Your task to perform on an android device: turn off smart reply in the gmail app Image 0: 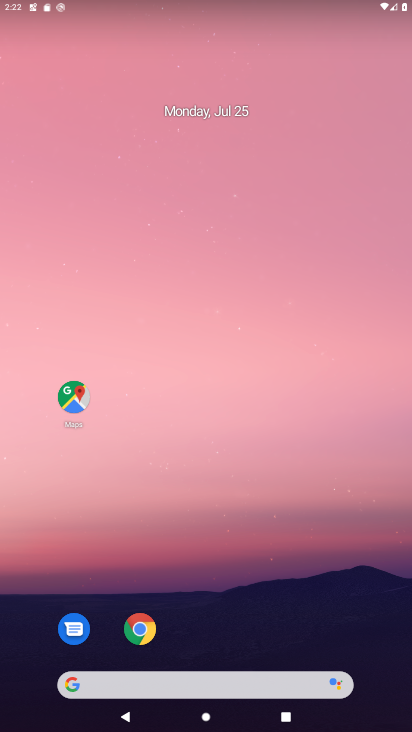
Step 0: drag from (109, 538) to (0, 72)
Your task to perform on an android device: turn off smart reply in the gmail app Image 1: 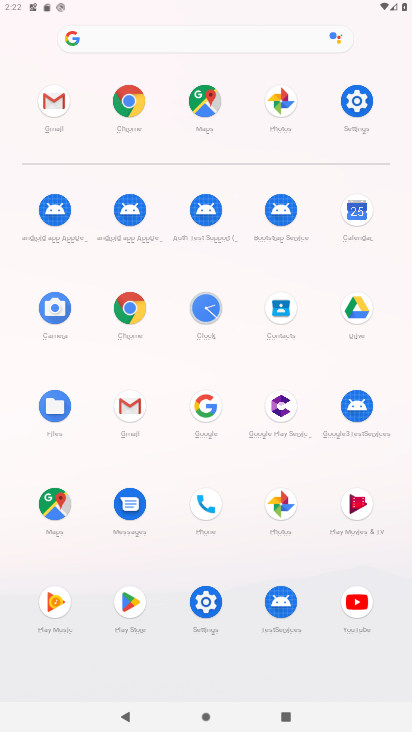
Step 1: click (54, 103)
Your task to perform on an android device: turn off smart reply in the gmail app Image 2: 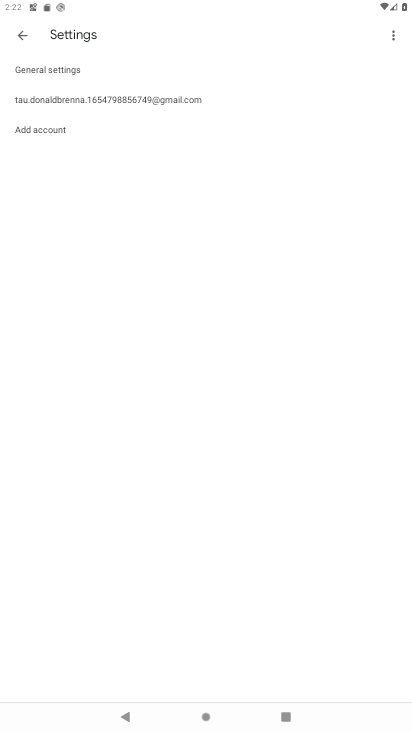
Step 2: click (28, 30)
Your task to perform on an android device: turn off smart reply in the gmail app Image 3: 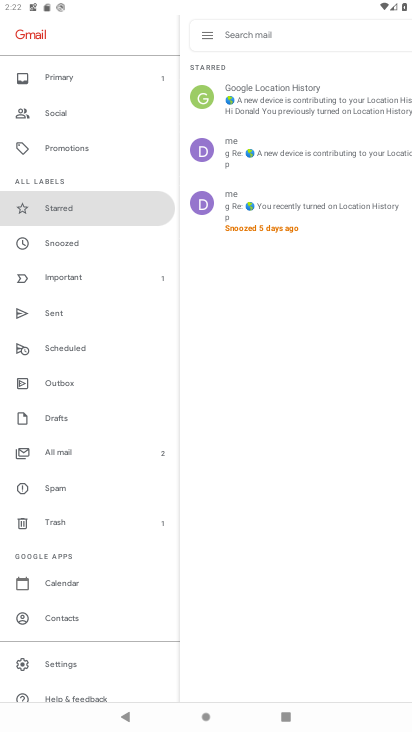
Step 3: drag from (71, 682) to (78, 259)
Your task to perform on an android device: turn off smart reply in the gmail app Image 4: 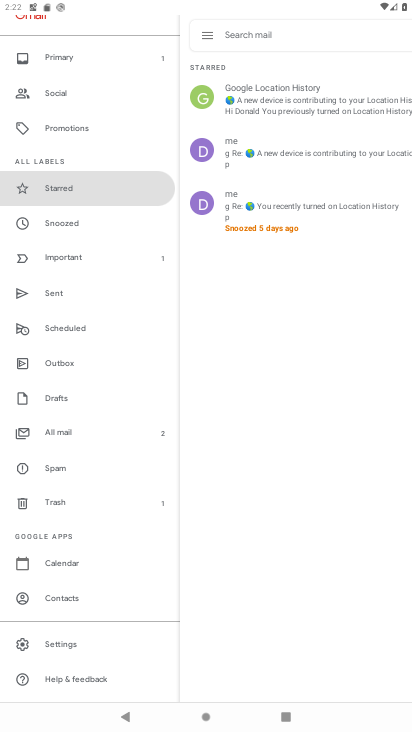
Step 4: click (45, 637)
Your task to perform on an android device: turn off smart reply in the gmail app Image 5: 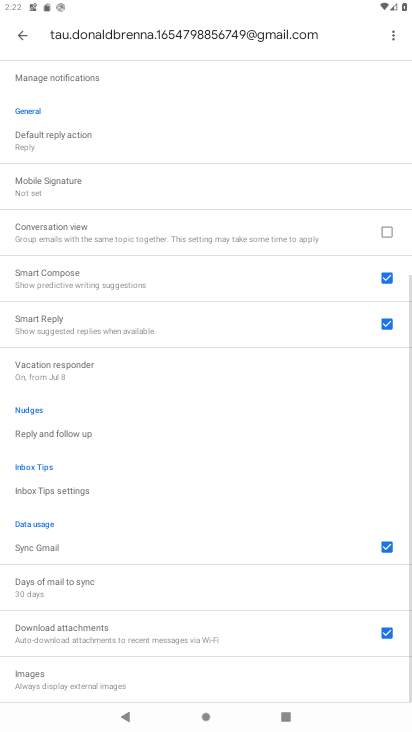
Step 5: drag from (46, 636) to (71, 266)
Your task to perform on an android device: turn off smart reply in the gmail app Image 6: 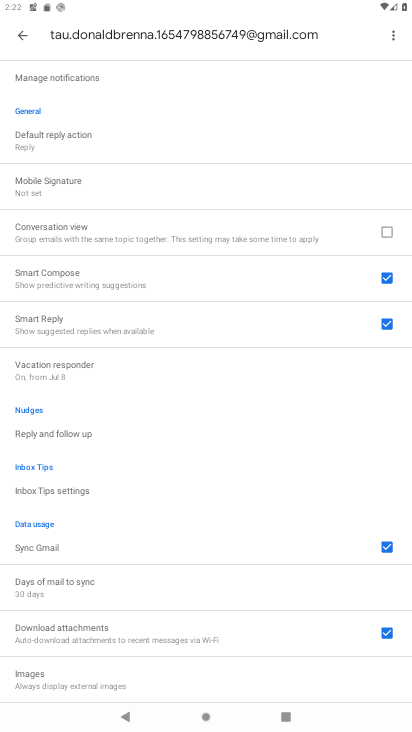
Step 6: click (382, 329)
Your task to perform on an android device: turn off smart reply in the gmail app Image 7: 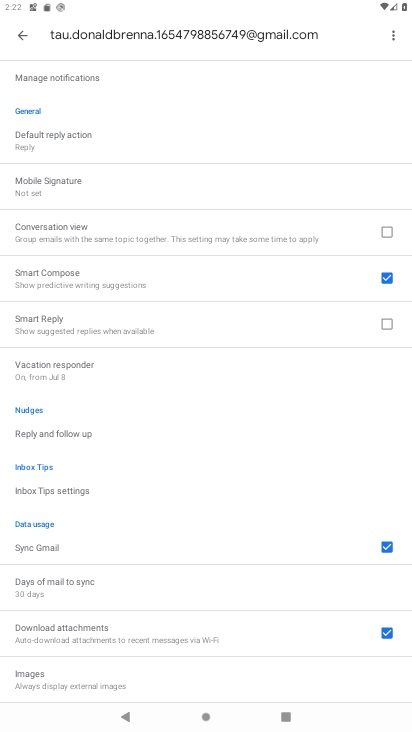
Step 7: task complete